Your task to perform on an android device: Turn off the flashlight Image 0: 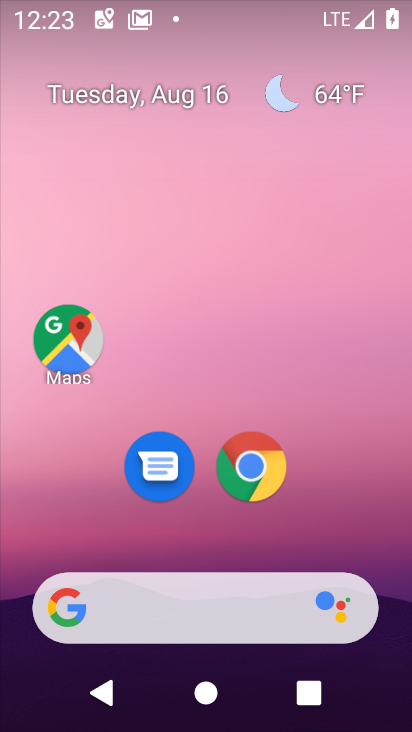
Step 0: drag from (165, 543) to (178, 164)
Your task to perform on an android device: Turn off the flashlight Image 1: 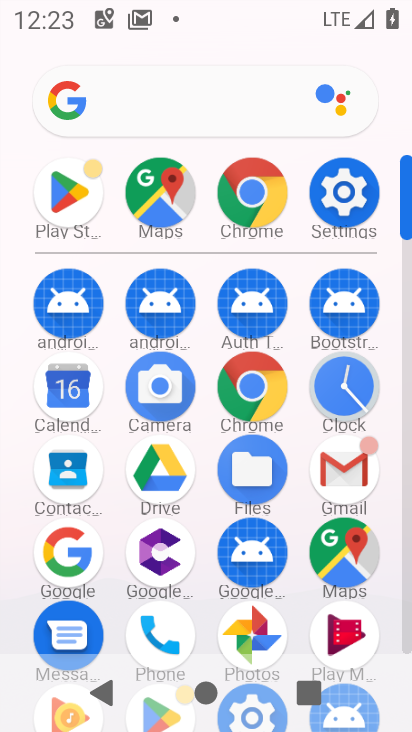
Step 1: click (330, 193)
Your task to perform on an android device: Turn off the flashlight Image 2: 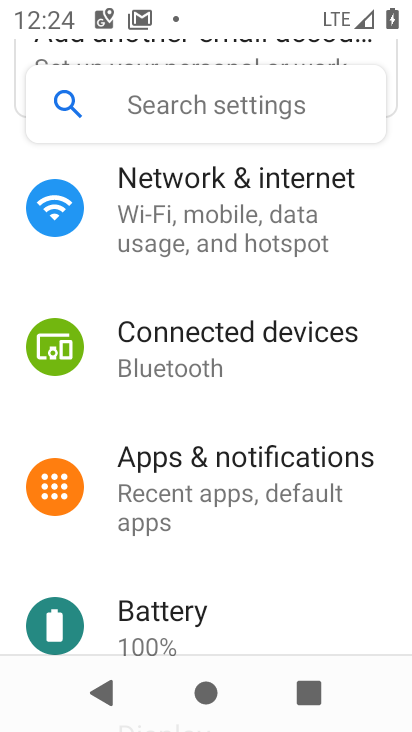
Step 2: task complete